Your task to perform on an android device: Go to Reddit.com Image 0: 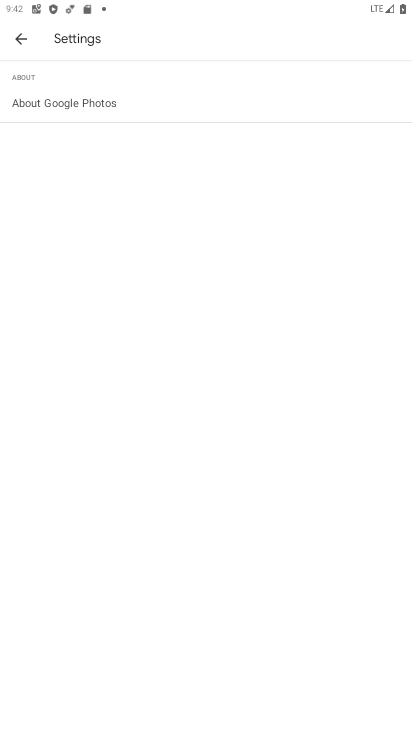
Step 0: press home button
Your task to perform on an android device: Go to Reddit.com Image 1: 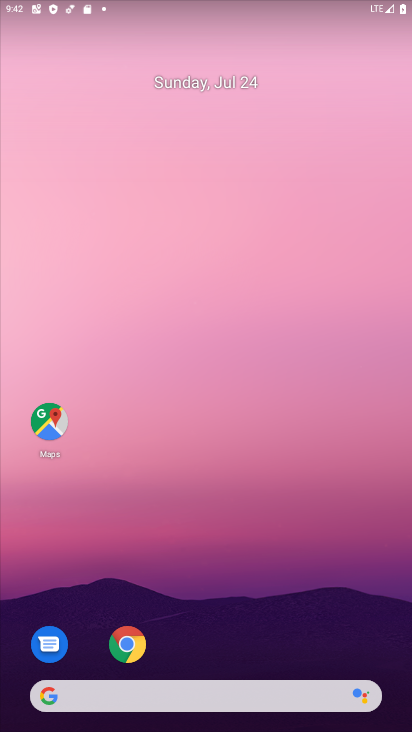
Step 1: drag from (230, 695) to (243, 137)
Your task to perform on an android device: Go to Reddit.com Image 2: 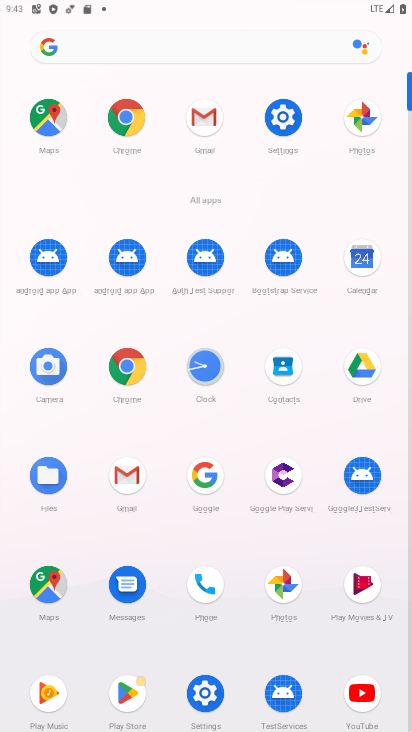
Step 2: click (198, 478)
Your task to perform on an android device: Go to Reddit.com Image 3: 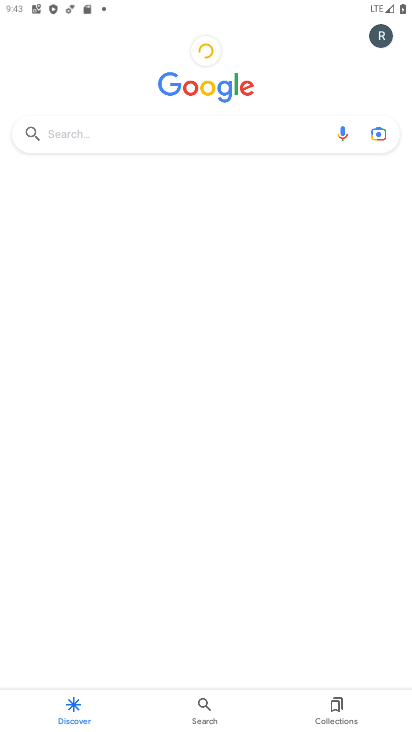
Step 3: click (242, 127)
Your task to perform on an android device: Go to Reddit.com Image 4: 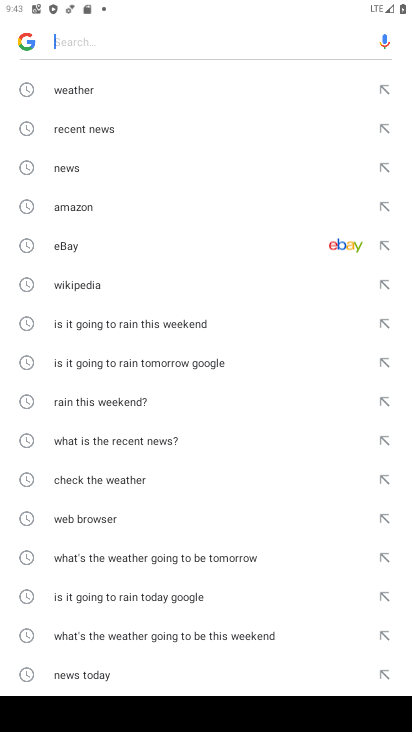
Step 4: drag from (112, 656) to (161, 283)
Your task to perform on an android device: Go to Reddit.com Image 5: 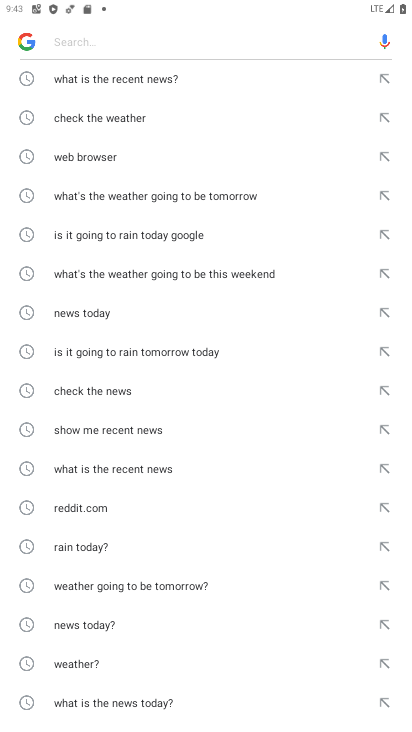
Step 5: click (86, 510)
Your task to perform on an android device: Go to Reddit.com Image 6: 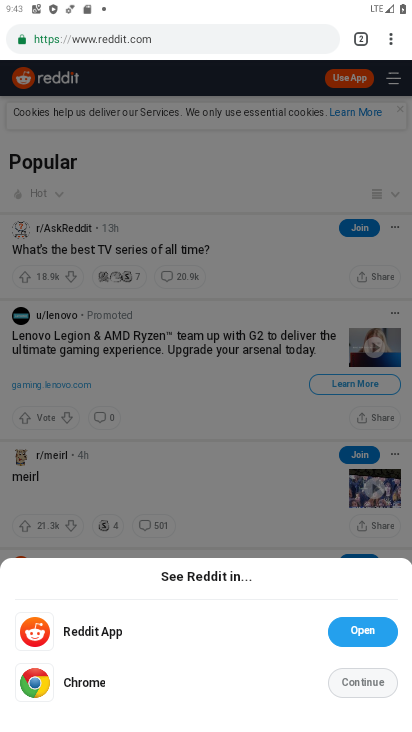
Step 6: task complete